Your task to perform on an android device: Clear all items from cart on newegg.com. Search for macbook pro 13 inch on newegg.com, select the first entry, and add it to the cart. Image 0: 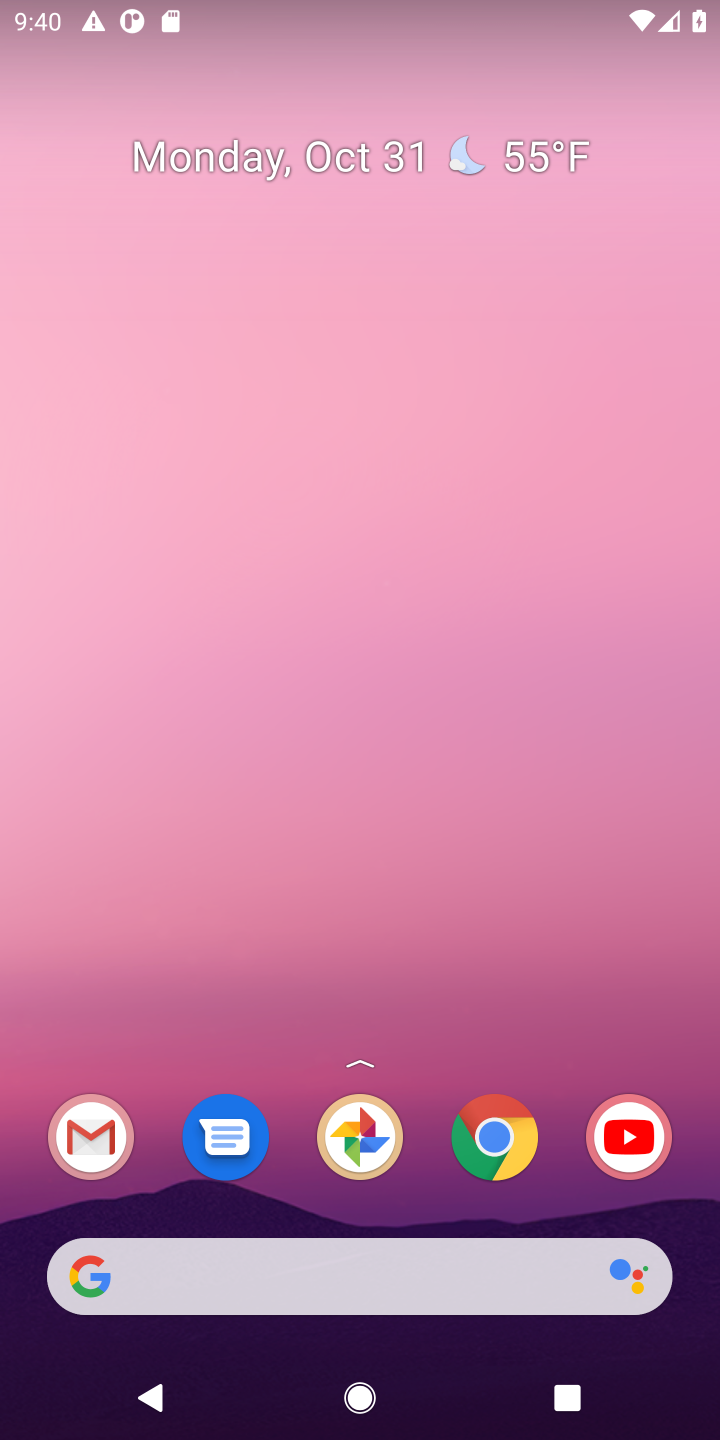
Step 0: click (485, 1146)
Your task to perform on an android device: Clear all items from cart on newegg.com. Search for macbook pro 13 inch on newegg.com, select the first entry, and add it to the cart. Image 1: 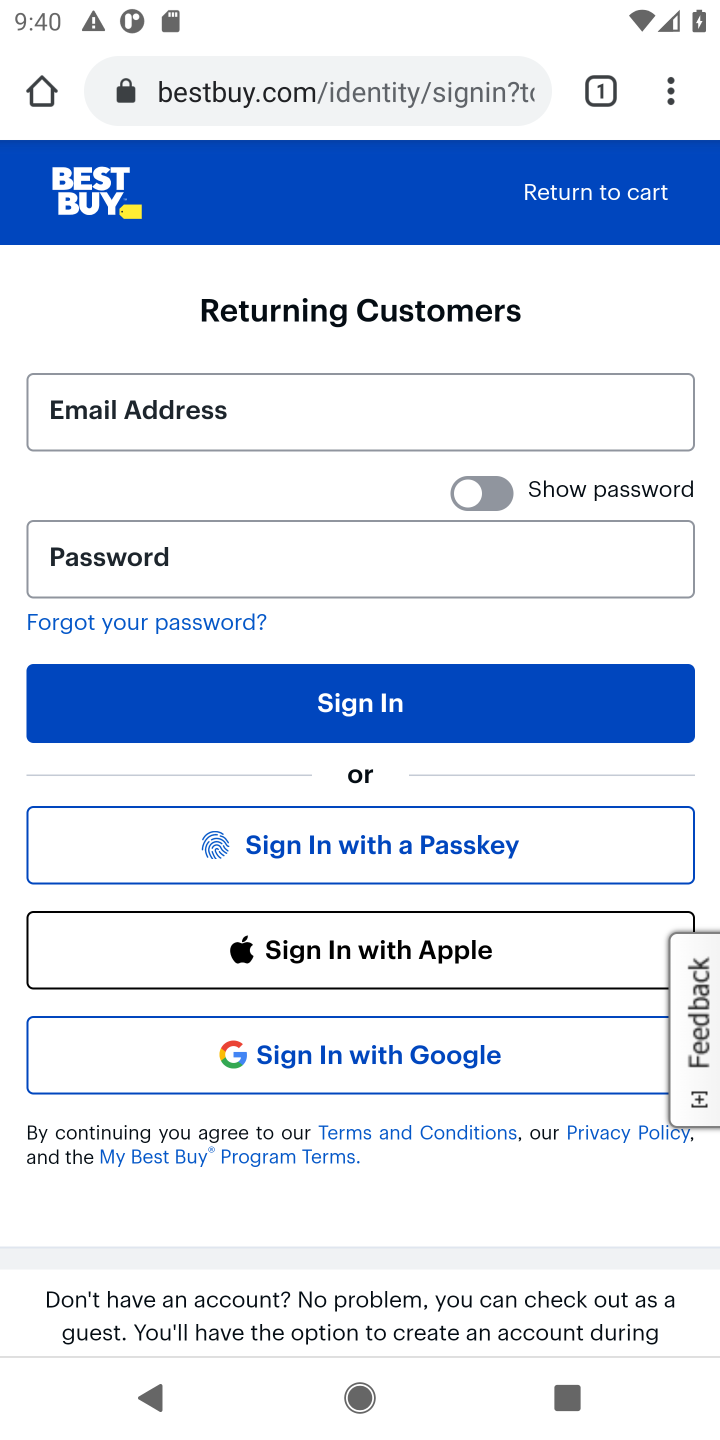
Step 1: click (330, 89)
Your task to perform on an android device: Clear all items from cart on newegg.com. Search for macbook pro 13 inch on newegg.com, select the first entry, and add it to the cart. Image 2: 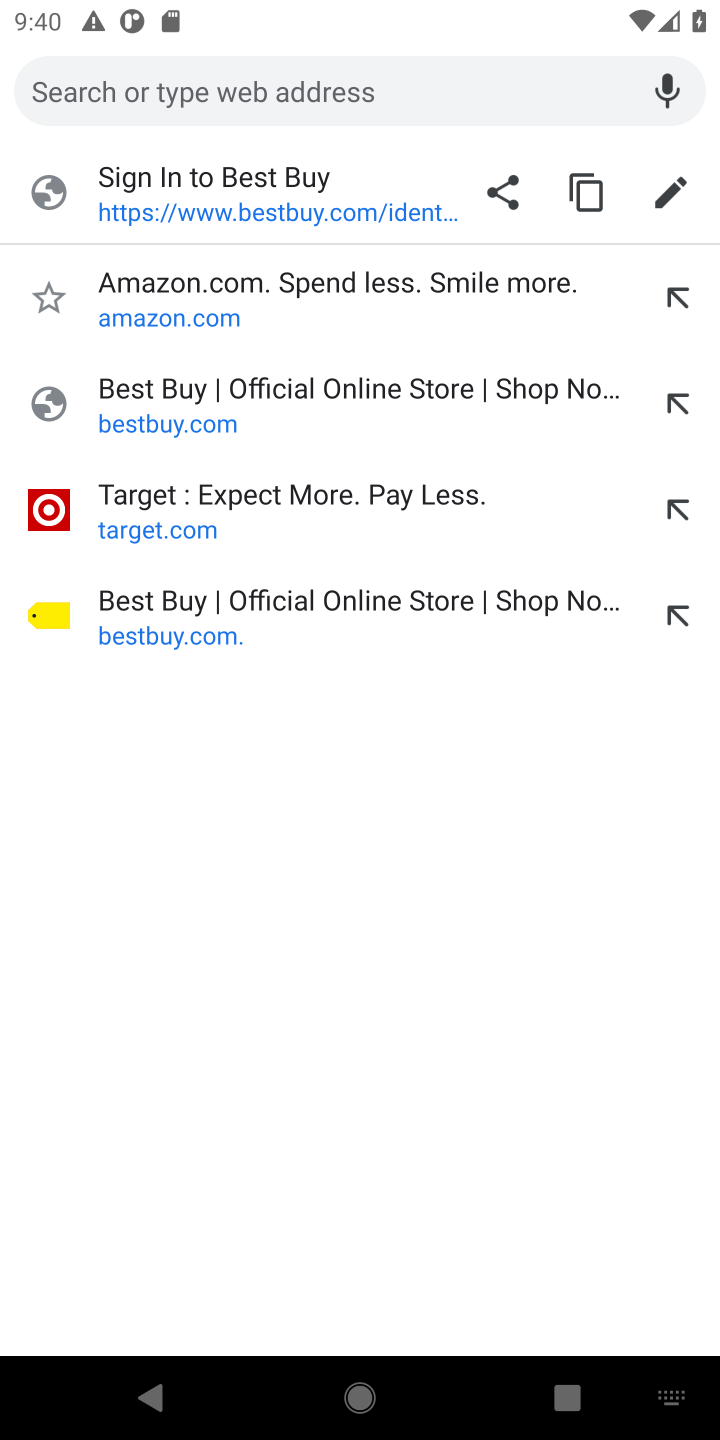
Step 2: type "newegg.com"
Your task to perform on an android device: Clear all items from cart on newegg.com. Search for macbook pro 13 inch on newegg.com, select the first entry, and add it to the cart. Image 3: 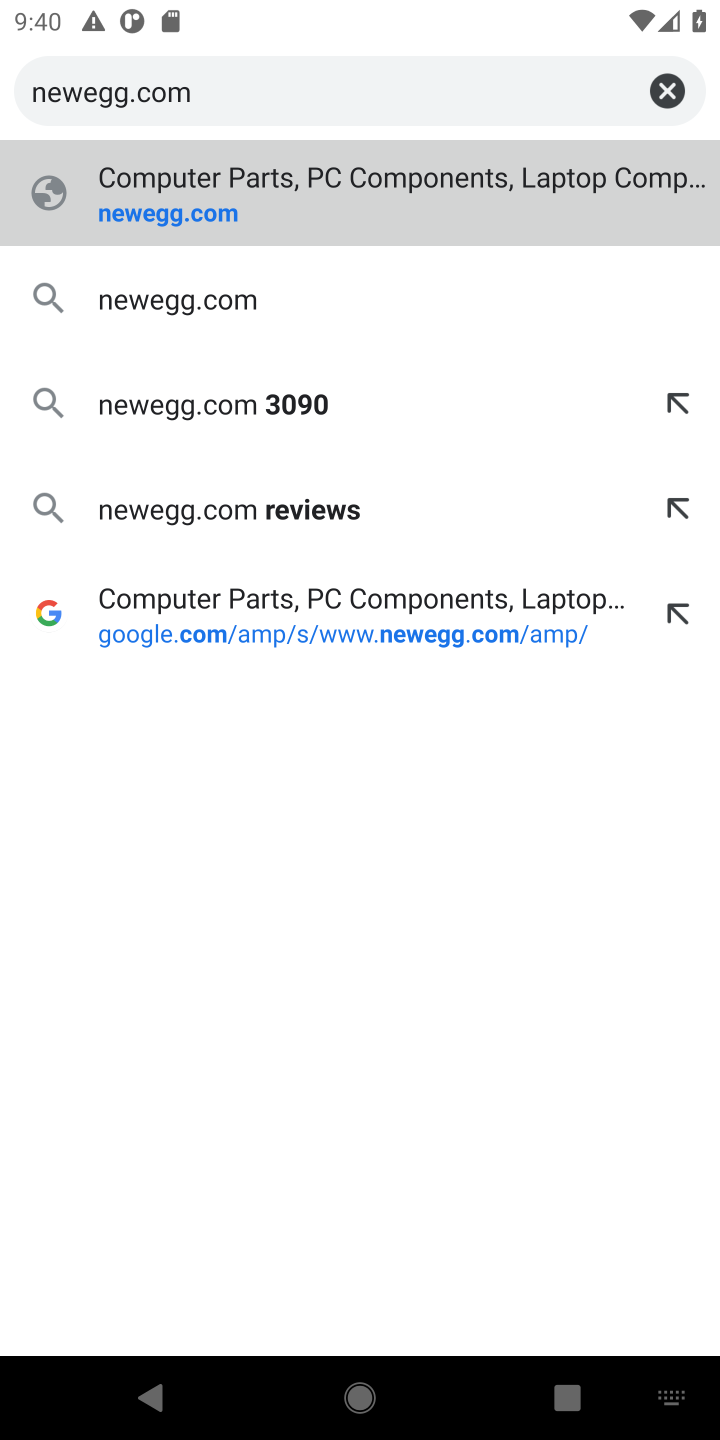
Step 3: click (191, 219)
Your task to perform on an android device: Clear all items from cart on newegg.com. Search for macbook pro 13 inch on newegg.com, select the first entry, and add it to the cart. Image 4: 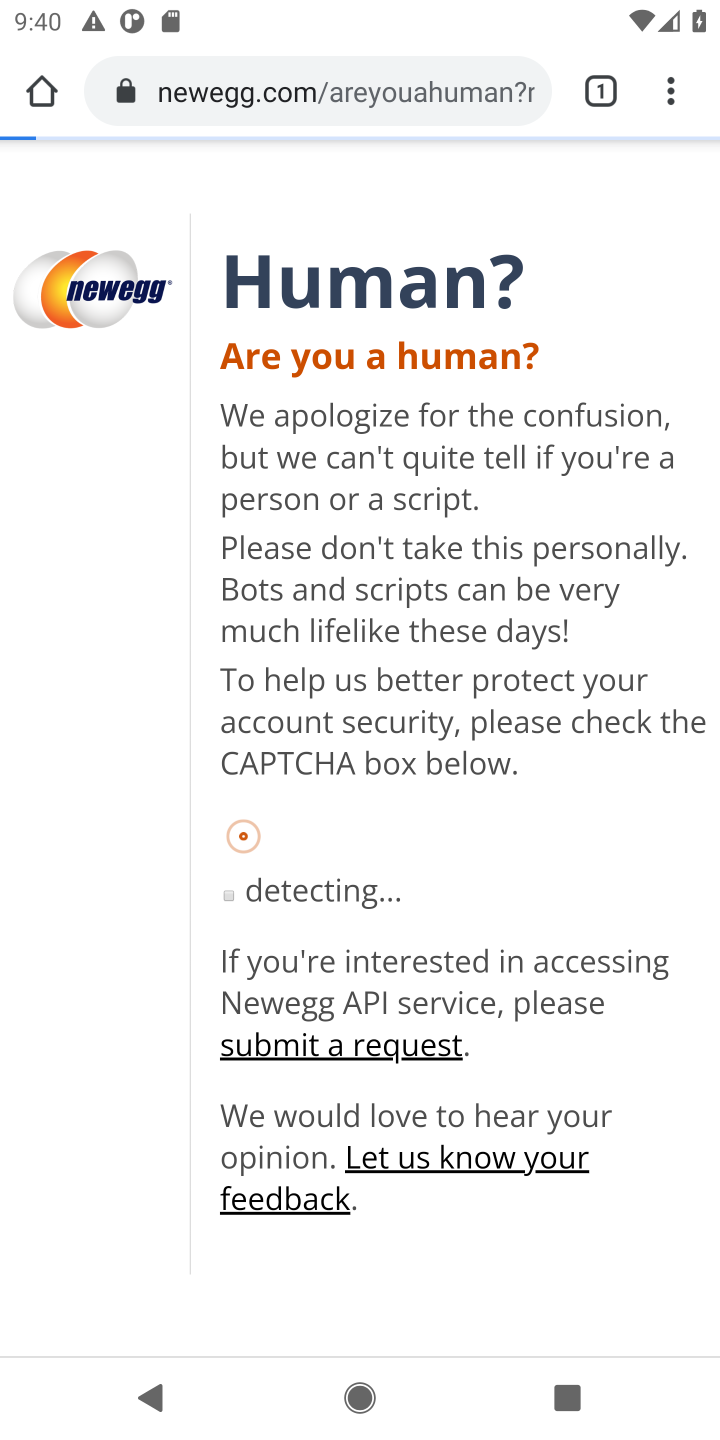
Step 4: click (382, 90)
Your task to perform on an android device: Clear all items from cart on newegg.com. Search for macbook pro 13 inch on newegg.com, select the first entry, and add it to the cart. Image 5: 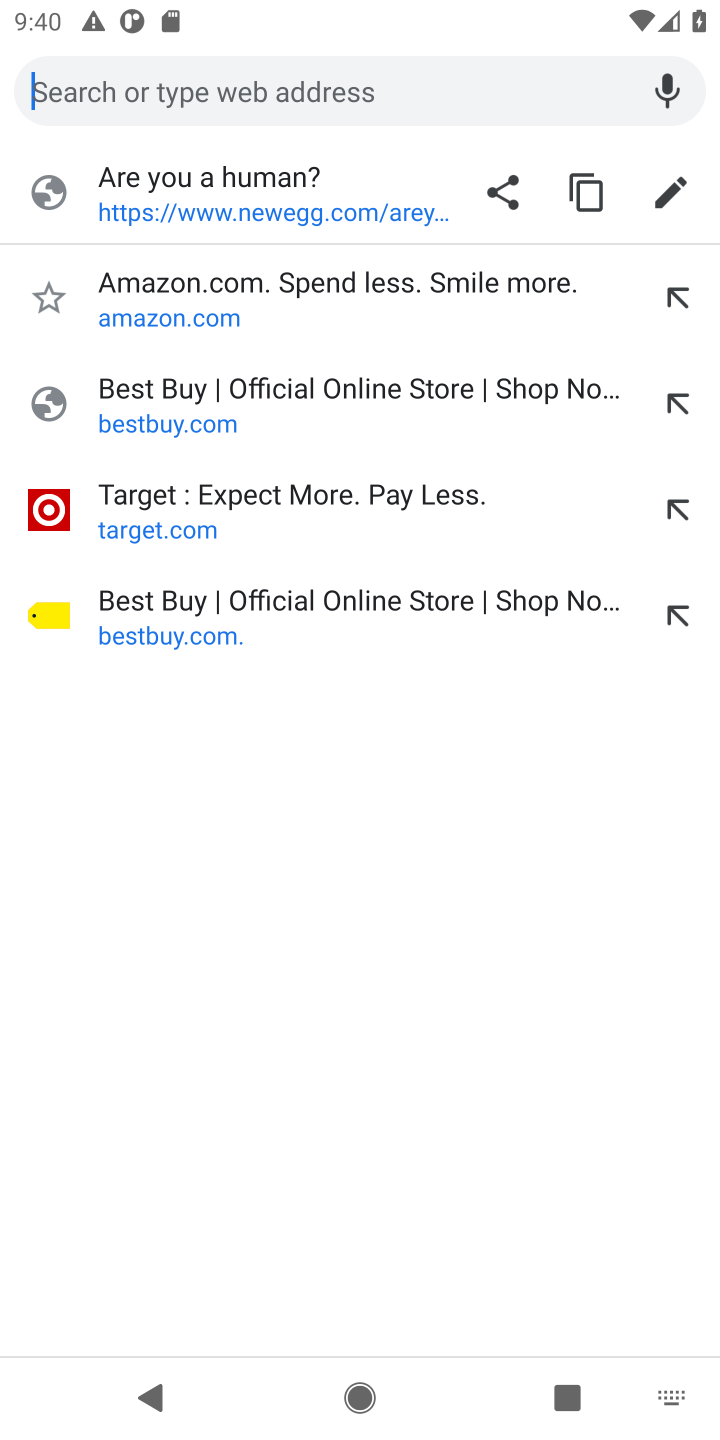
Step 5: press back button
Your task to perform on an android device: Clear all items from cart on newegg.com. Search for macbook pro 13 inch on newegg.com, select the first entry, and add it to the cart. Image 6: 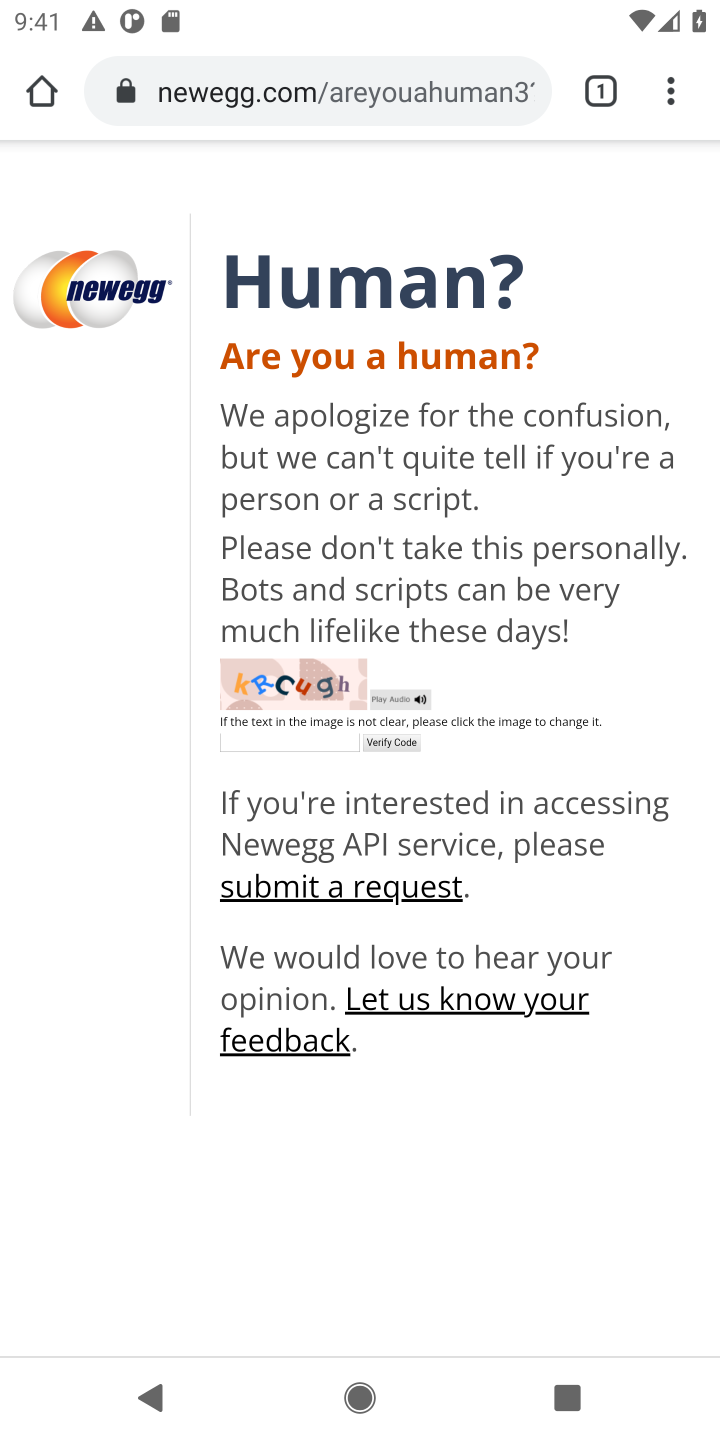
Step 6: press back button
Your task to perform on an android device: Clear all items from cart on newegg.com. Search for macbook pro 13 inch on newegg.com, select the first entry, and add it to the cart. Image 7: 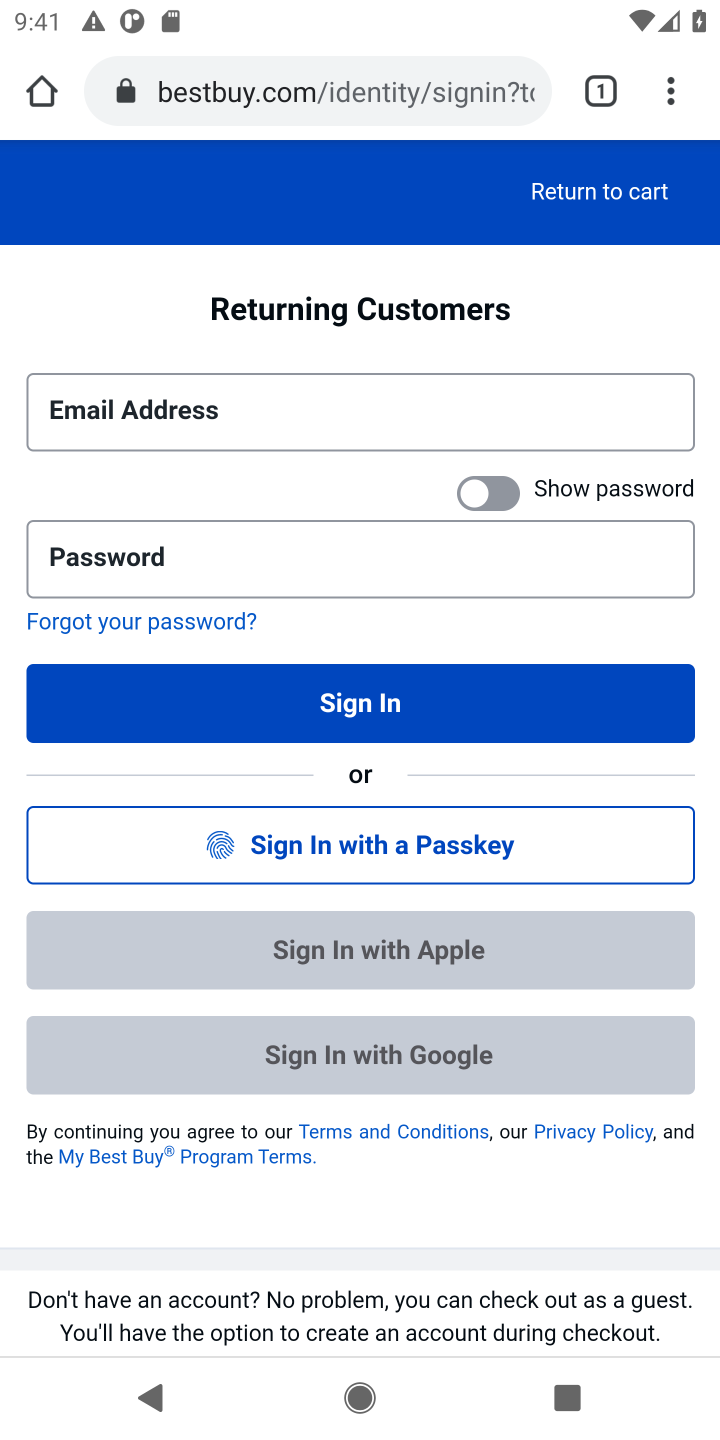
Step 7: click (332, 71)
Your task to perform on an android device: Clear all items from cart on newegg.com. Search for macbook pro 13 inch on newegg.com, select the first entry, and add it to the cart. Image 8: 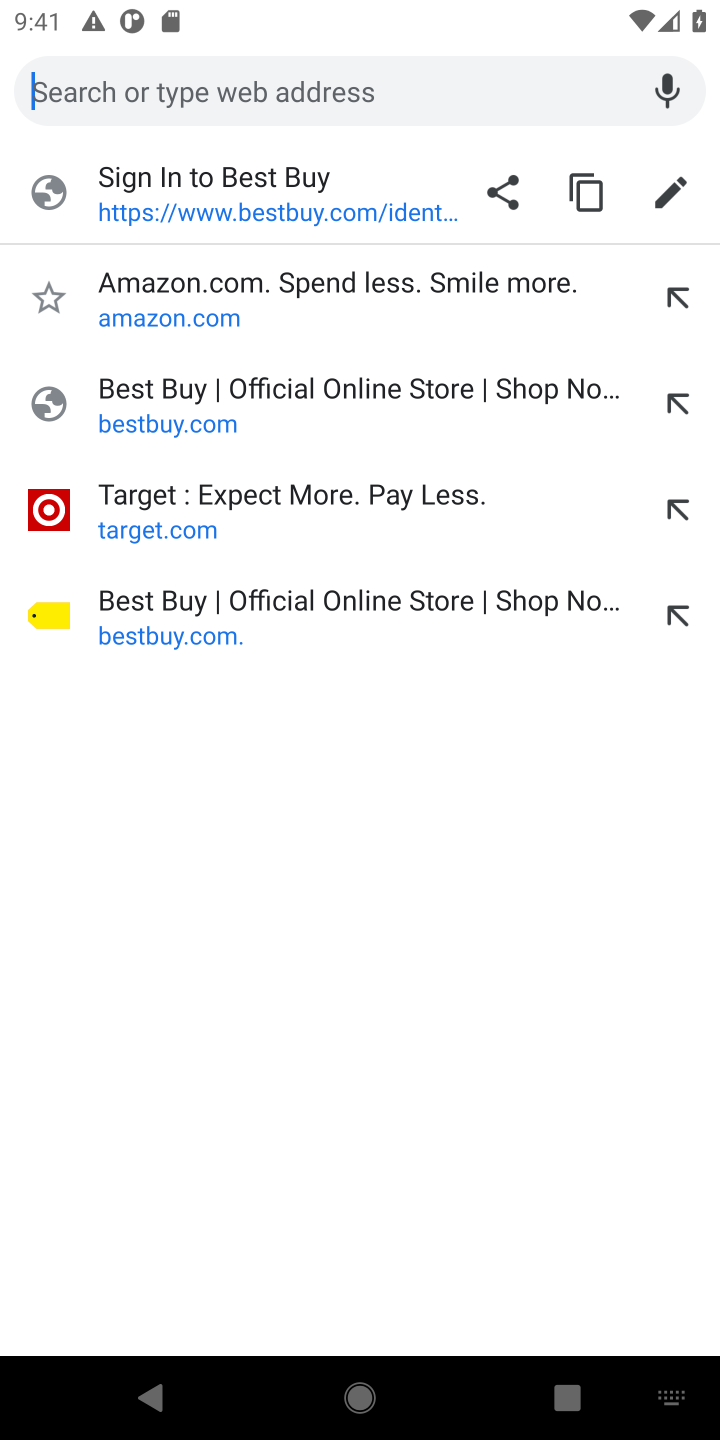
Step 8: type "newegg.com"
Your task to perform on an android device: Clear all items from cart on newegg.com. Search for macbook pro 13 inch on newegg.com, select the first entry, and add it to the cart. Image 9: 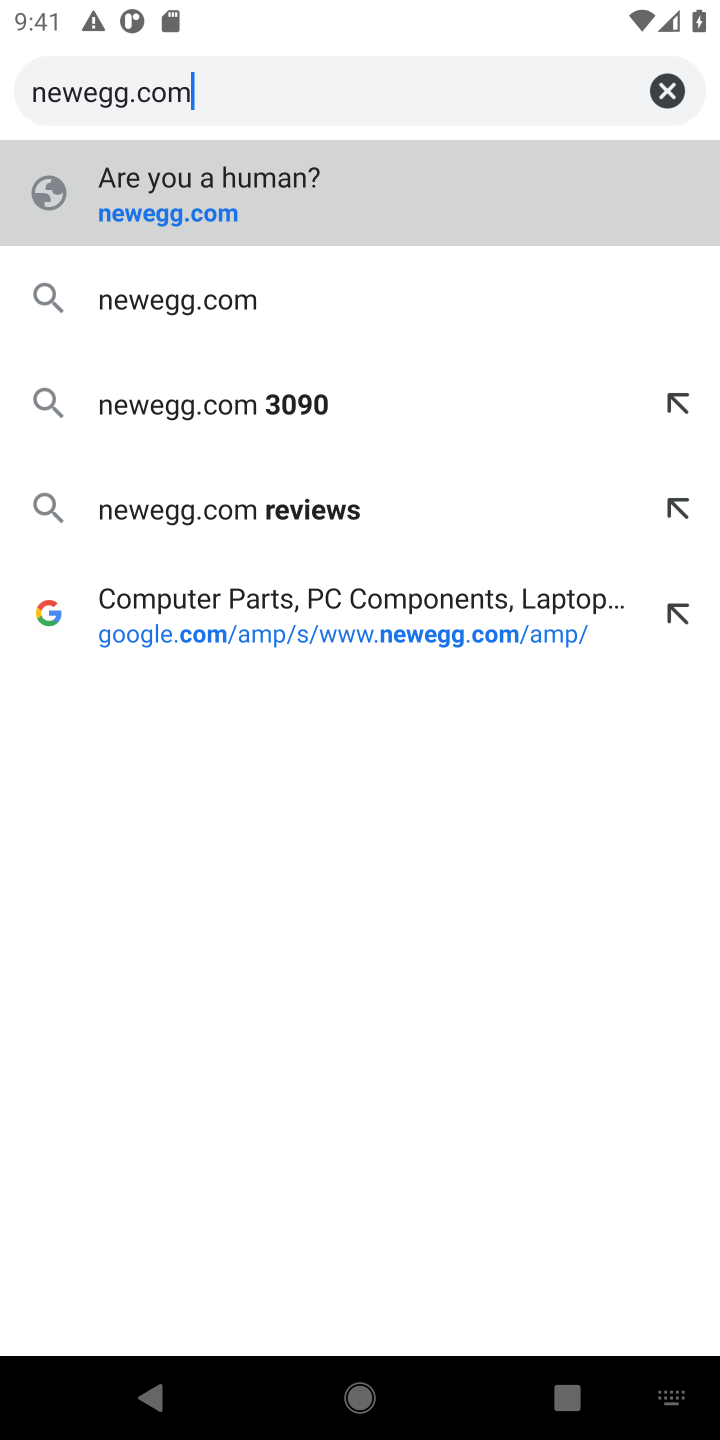
Step 9: click (186, 312)
Your task to perform on an android device: Clear all items from cart on newegg.com. Search for macbook pro 13 inch on newegg.com, select the first entry, and add it to the cart. Image 10: 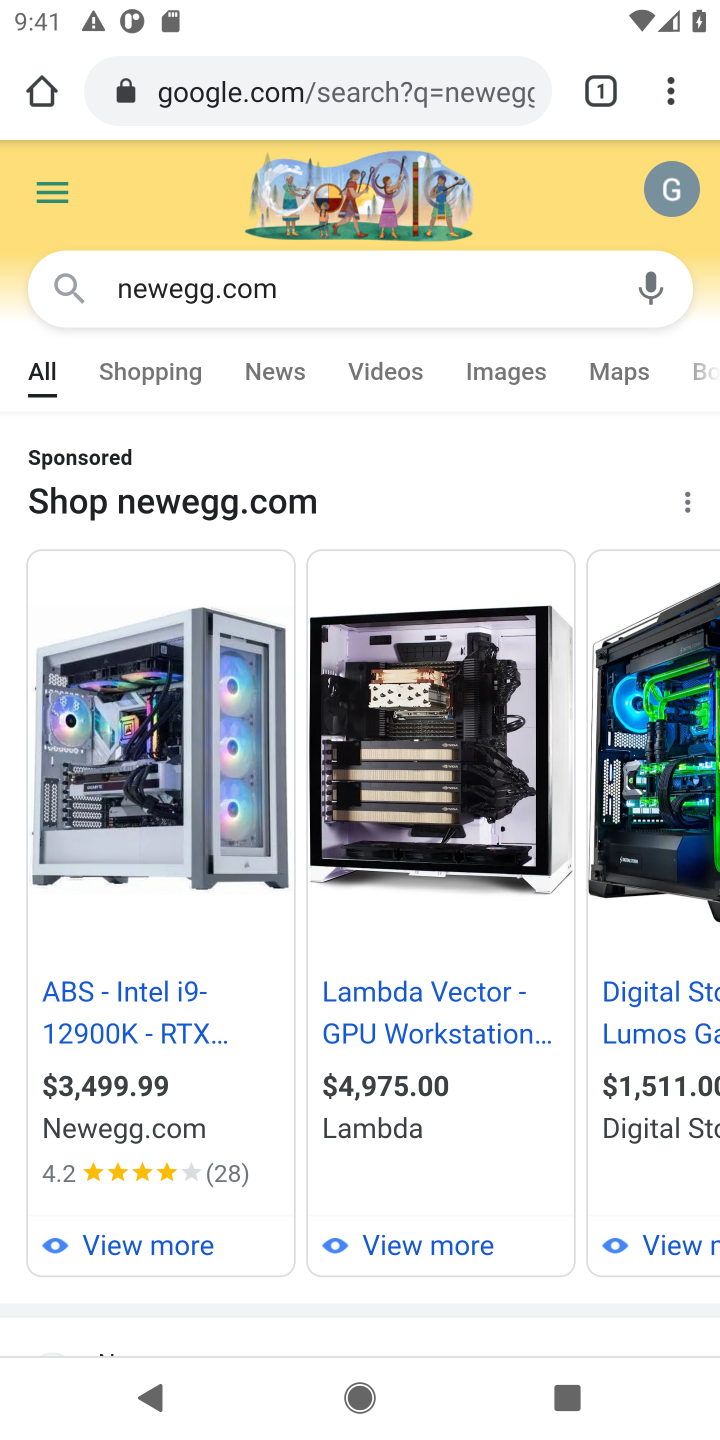
Step 10: drag from (207, 938) to (229, 360)
Your task to perform on an android device: Clear all items from cart on newegg.com. Search for macbook pro 13 inch on newegg.com, select the first entry, and add it to the cart. Image 11: 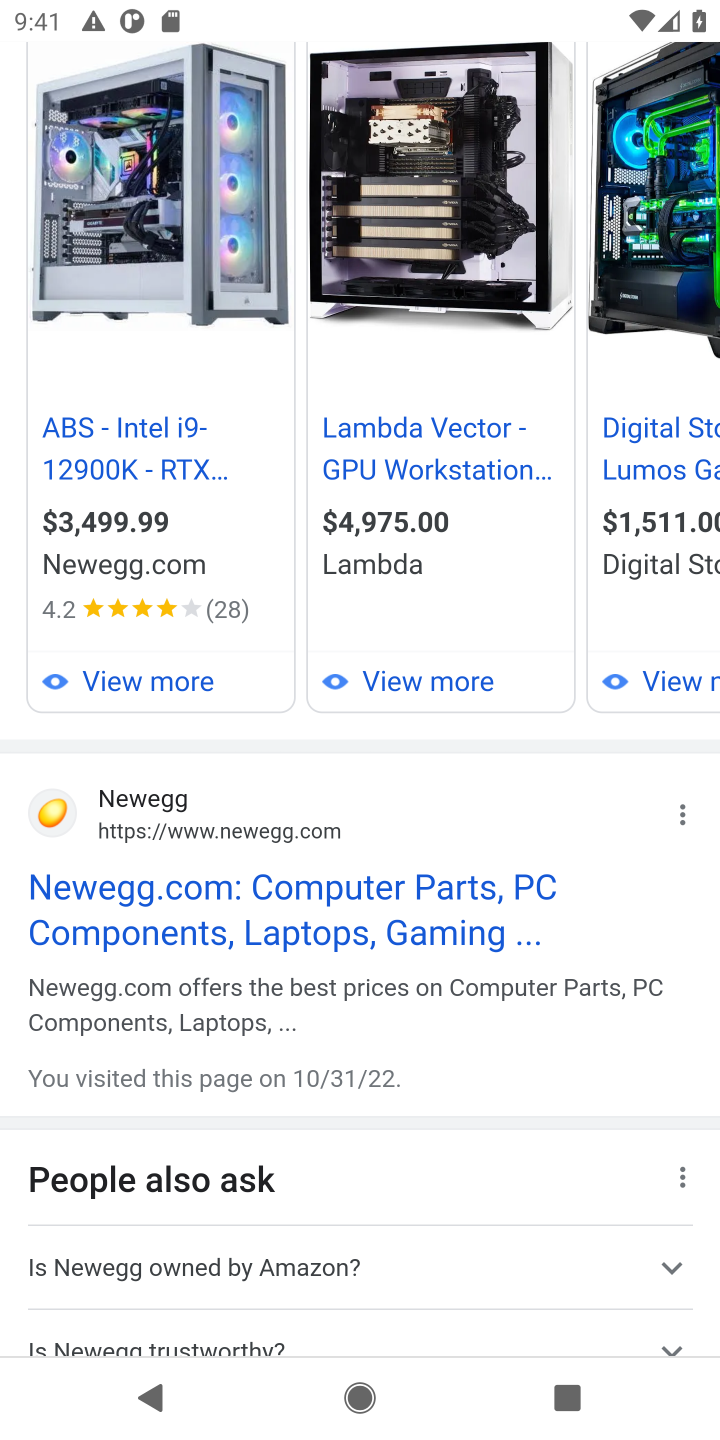
Step 11: click (119, 810)
Your task to perform on an android device: Clear all items from cart on newegg.com. Search for macbook pro 13 inch on newegg.com, select the first entry, and add it to the cart. Image 12: 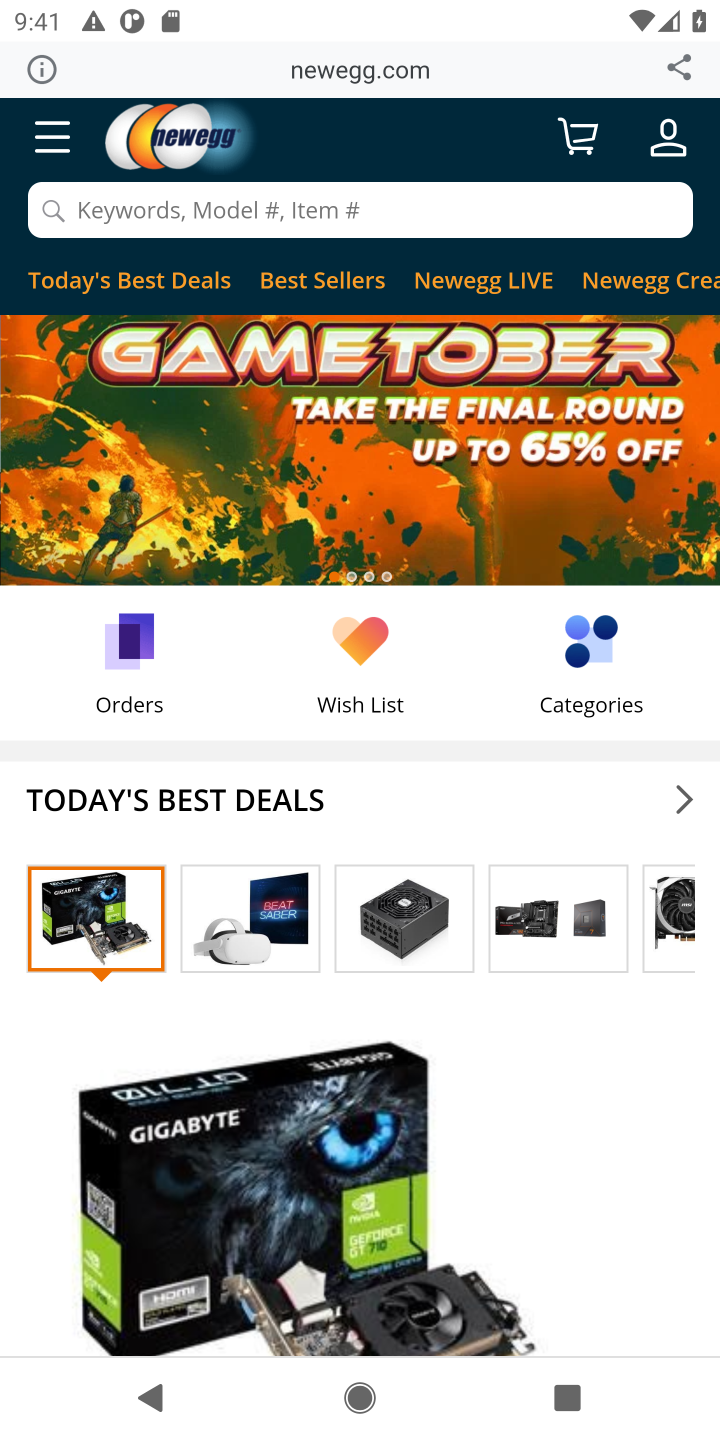
Step 12: click (298, 226)
Your task to perform on an android device: Clear all items from cart on newegg.com. Search for macbook pro 13 inch on newegg.com, select the first entry, and add it to the cart. Image 13: 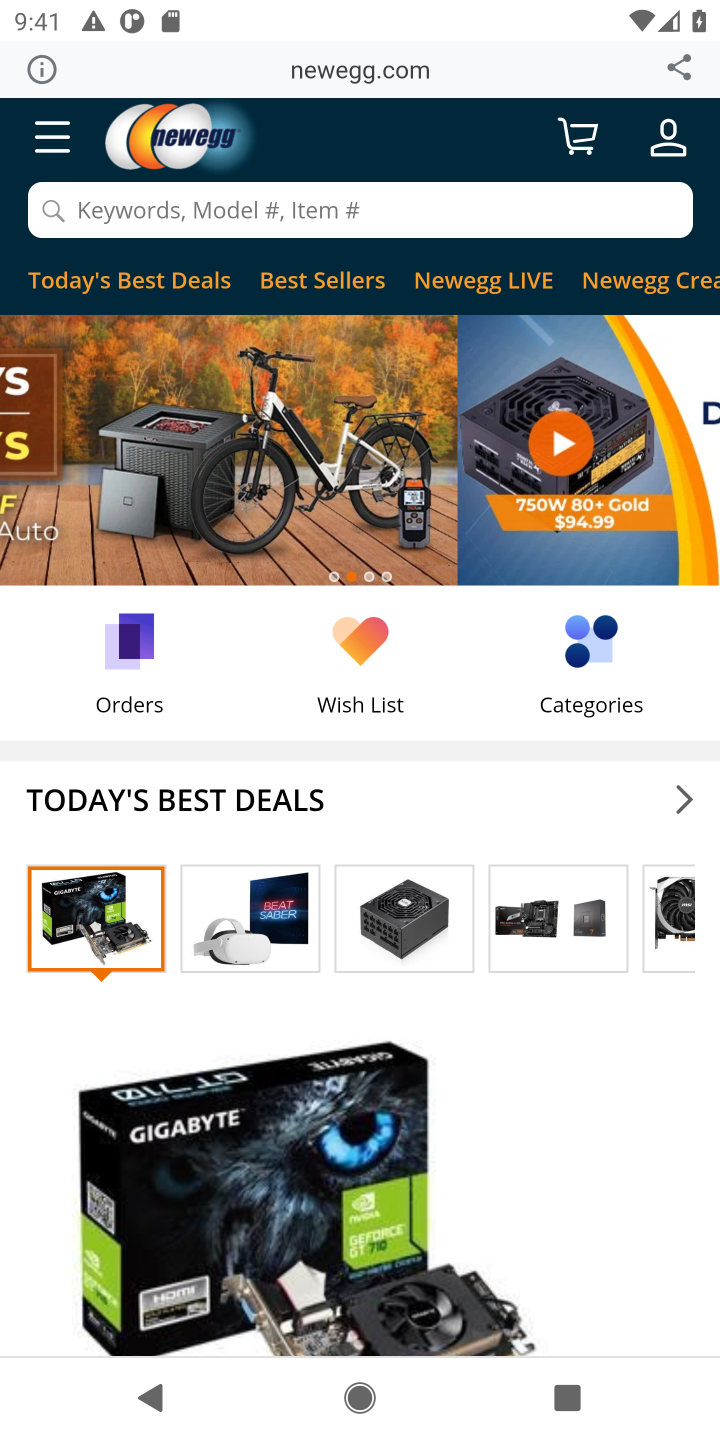
Step 13: click (246, 219)
Your task to perform on an android device: Clear all items from cart on newegg.com. Search for macbook pro 13 inch on newegg.com, select the first entry, and add it to the cart. Image 14: 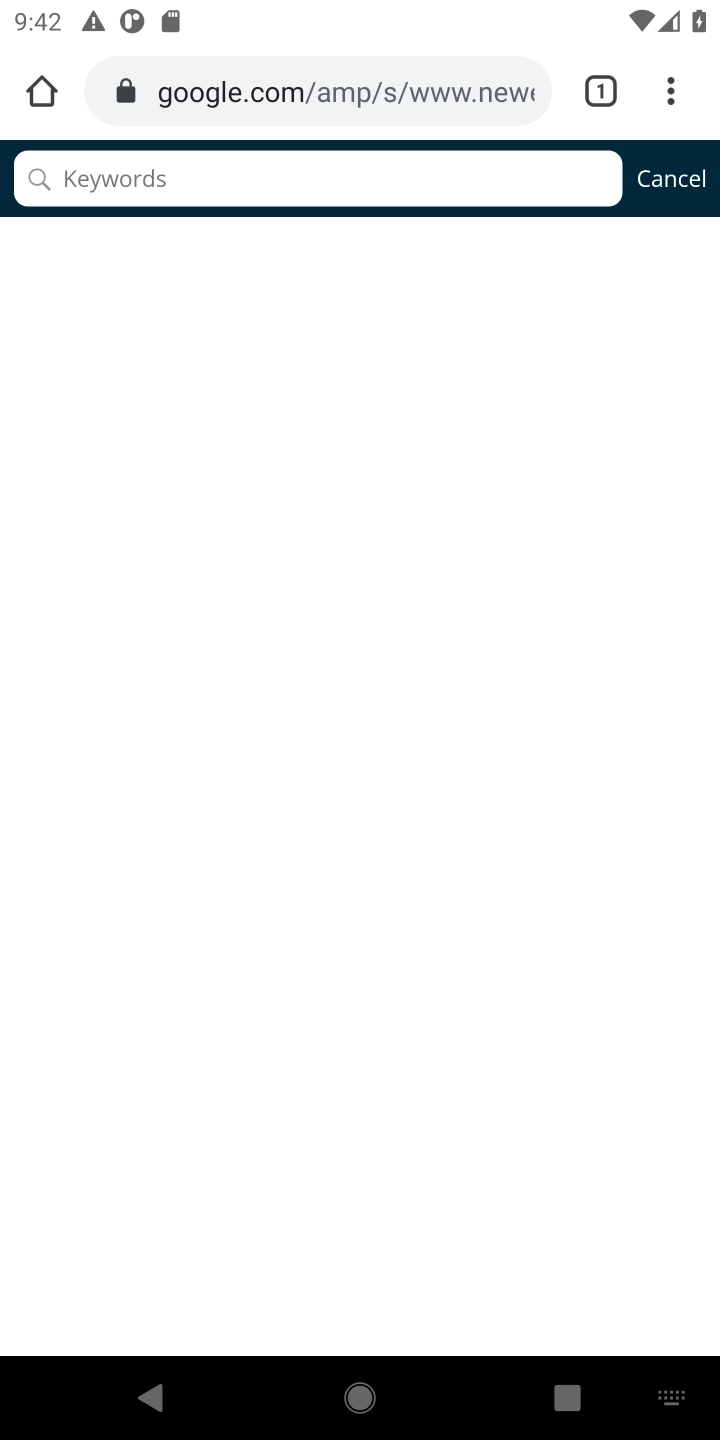
Step 14: type "macbook pro 13 inch"
Your task to perform on an android device: Clear all items from cart on newegg.com. Search for macbook pro 13 inch on newegg.com, select the first entry, and add it to the cart. Image 15: 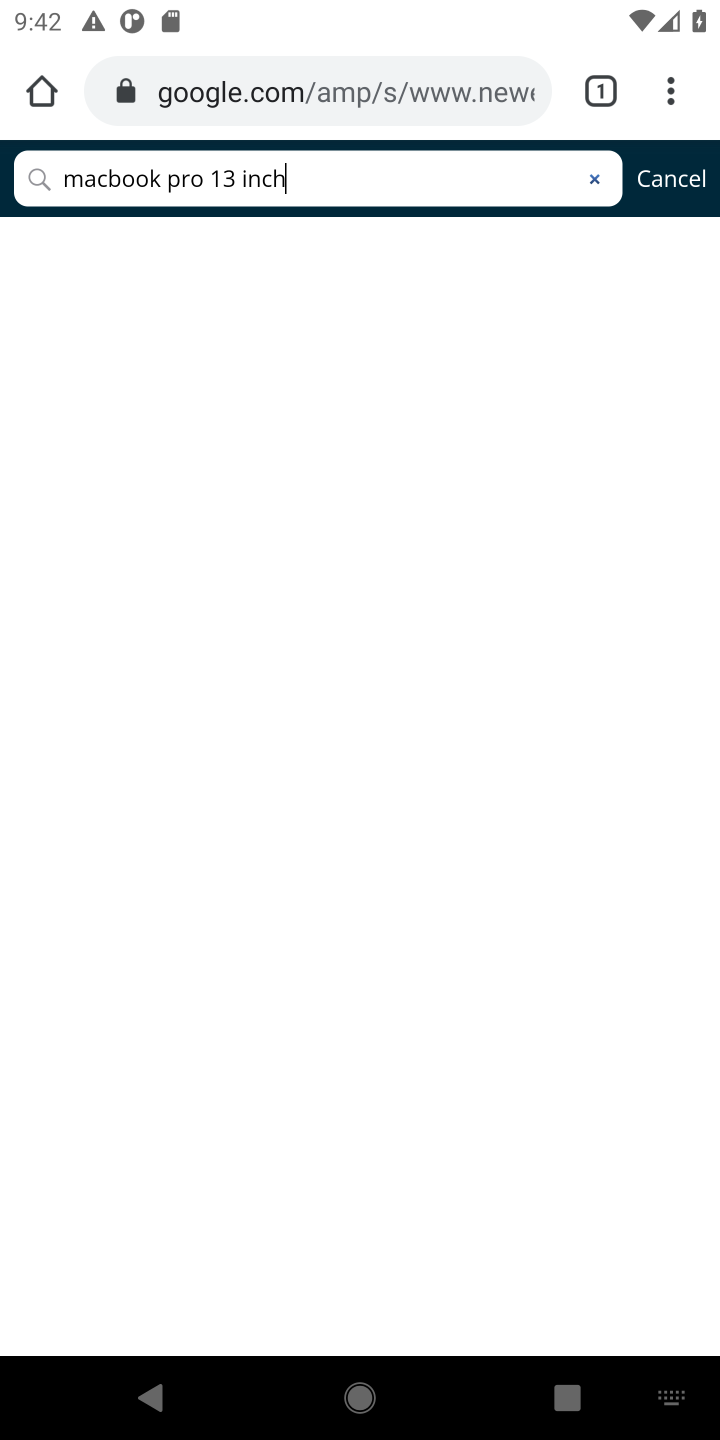
Step 15: click (410, 173)
Your task to perform on an android device: Clear all items from cart on newegg.com. Search for macbook pro 13 inch on newegg.com, select the first entry, and add it to the cart. Image 16: 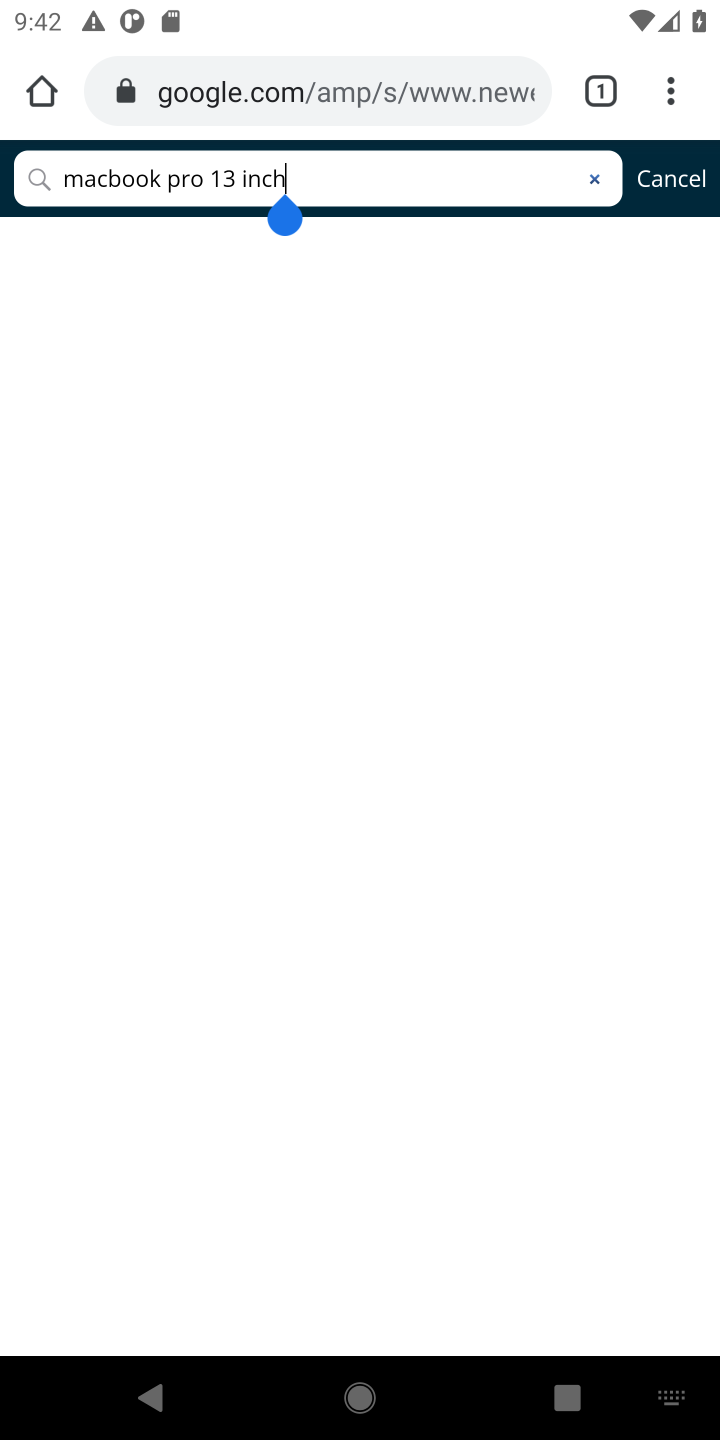
Step 16: task complete